Your task to perform on an android device: Open Google Chrome and click the shortcut for Amazon.com Image 0: 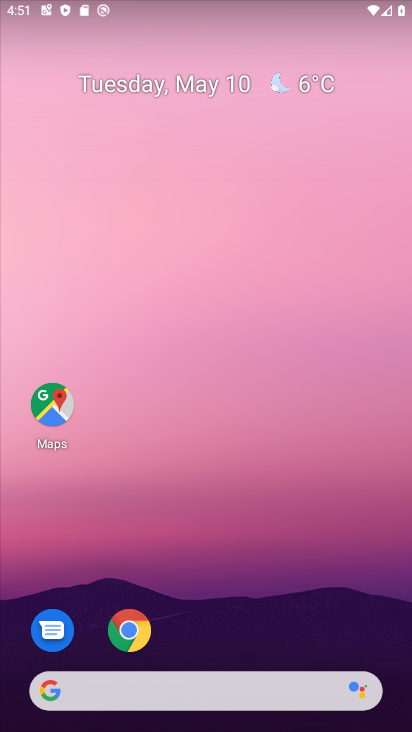
Step 0: drag from (258, 641) to (269, 105)
Your task to perform on an android device: Open Google Chrome and click the shortcut for Amazon.com Image 1: 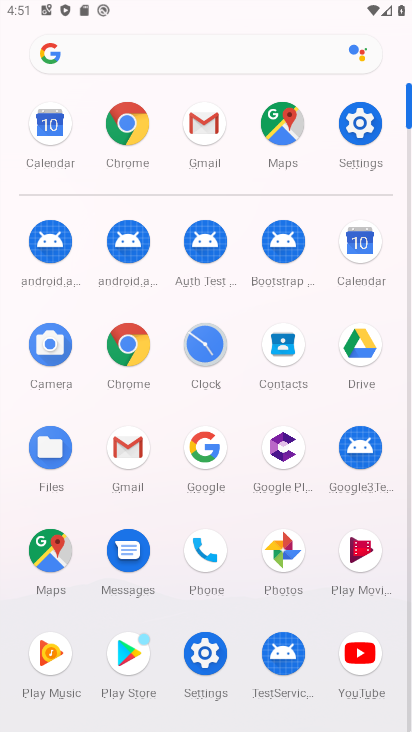
Step 1: click (116, 349)
Your task to perform on an android device: Open Google Chrome and click the shortcut for Amazon.com Image 2: 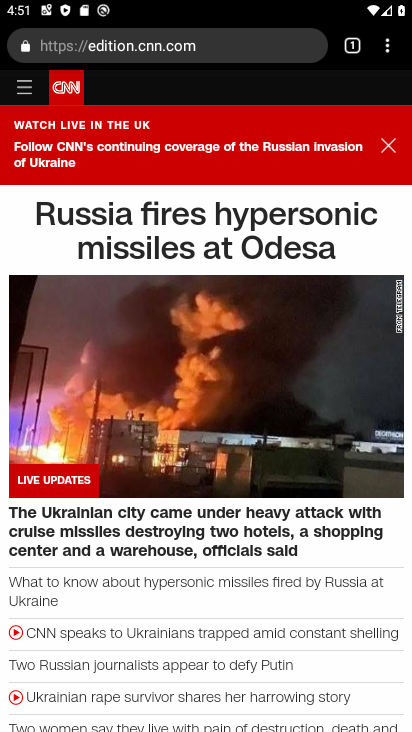
Step 2: click (207, 41)
Your task to perform on an android device: Open Google Chrome and click the shortcut for Amazon.com Image 3: 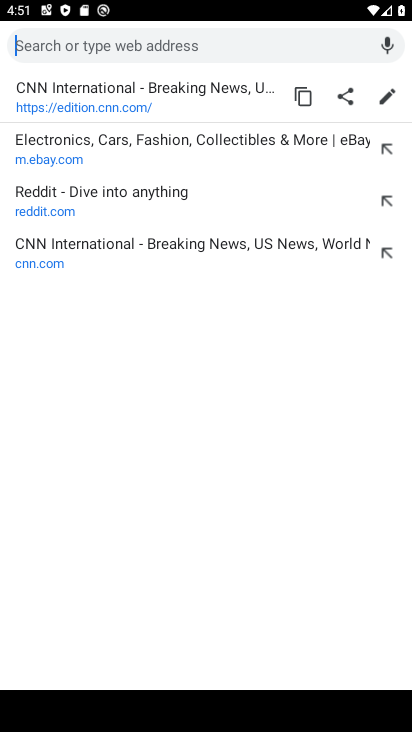
Step 3: type "amazon"
Your task to perform on an android device: Open Google Chrome and click the shortcut for Amazon.com Image 4: 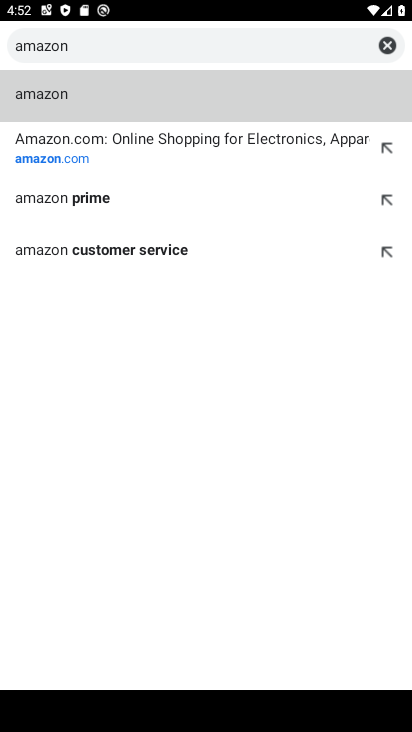
Step 4: click (62, 156)
Your task to perform on an android device: Open Google Chrome and click the shortcut for Amazon.com Image 5: 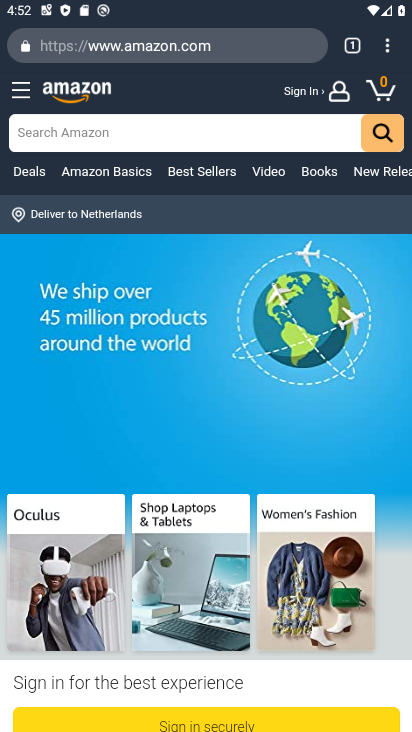
Step 5: task complete